Your task to perform on an android device: Check the weather Image 0: 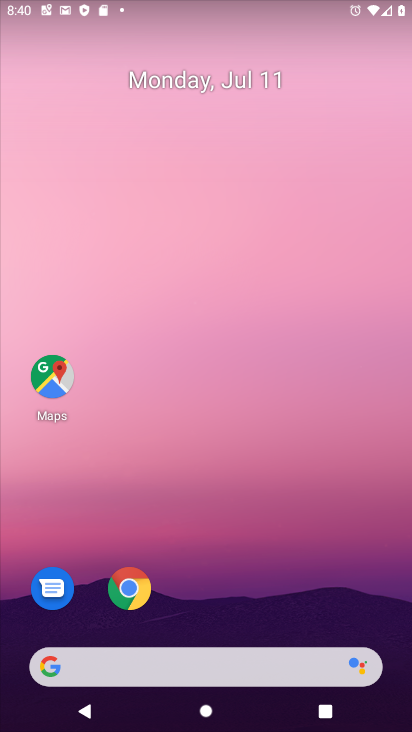
Step 0: click (161, 665)
Your task to perform on an android device: Check the weather Image 1: 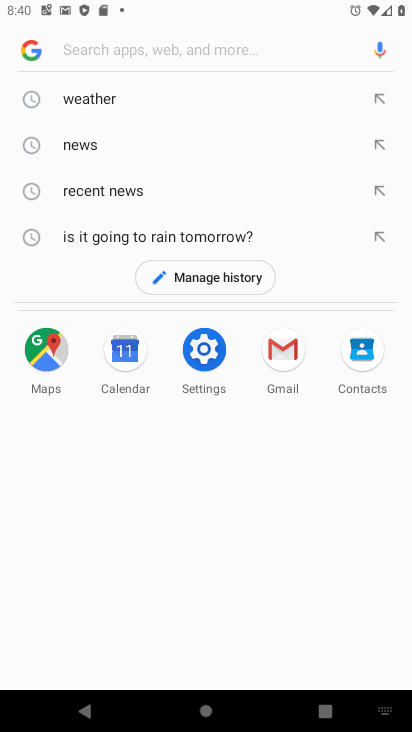
Step 1: click (90, 91)
Your task to perform on an android device: Check the weather Image 2: 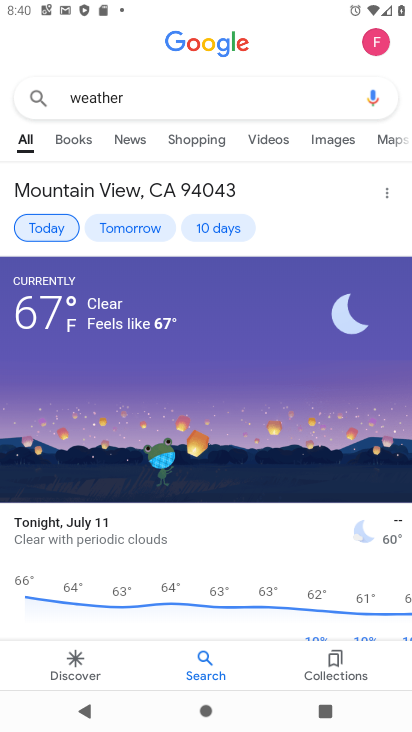
Step 2: task complete